Your task to perform on an android device: Search for sushi restaurants on Maps Image 0: 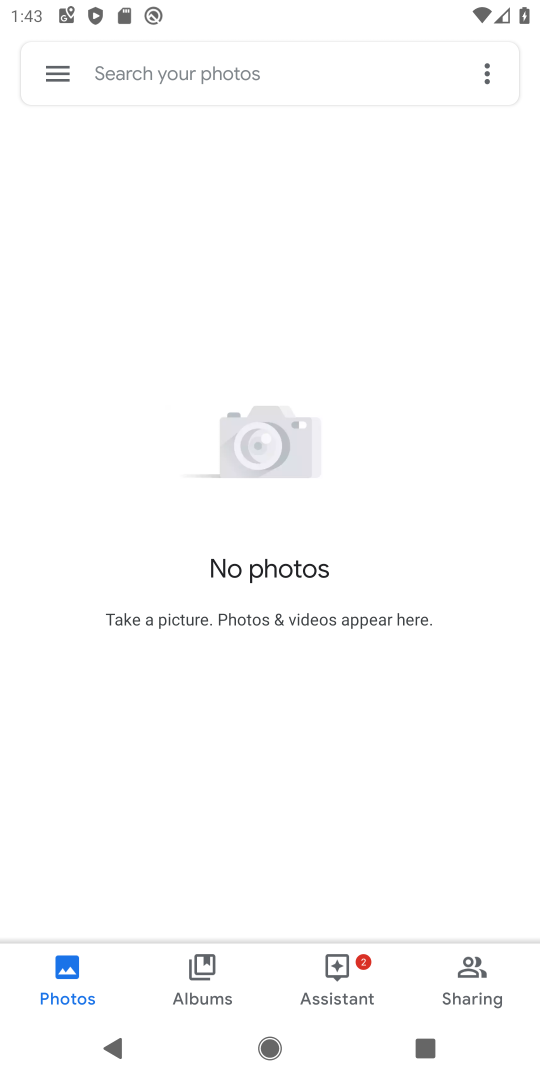
Step 0: press home button
Your task to perform on an android device: Search for sushi restaurants on Maps Image 1: 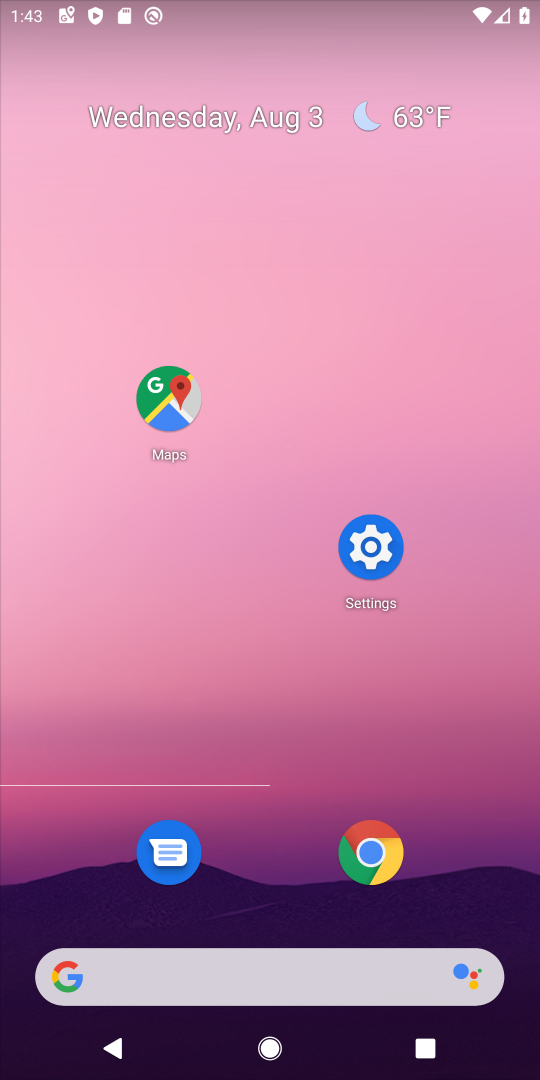
Step 1: click (177, 404)
Your task to perform on an android device: Search for sushi restaurants on Maps Image 2: 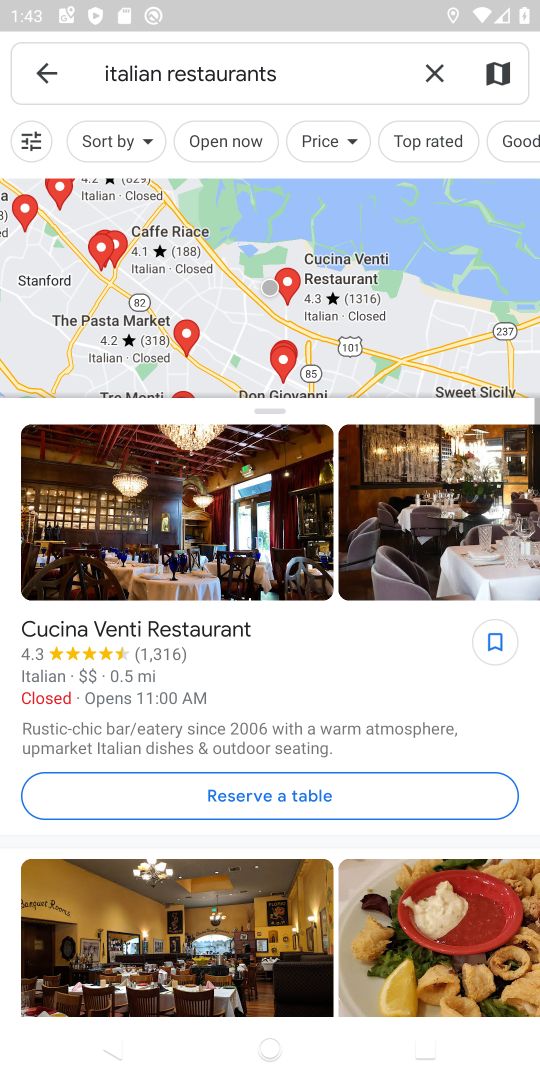
Step 2: click (434, 75)
Your task to perform on an android device: Search for sushi restaurants on Maps Image 3: 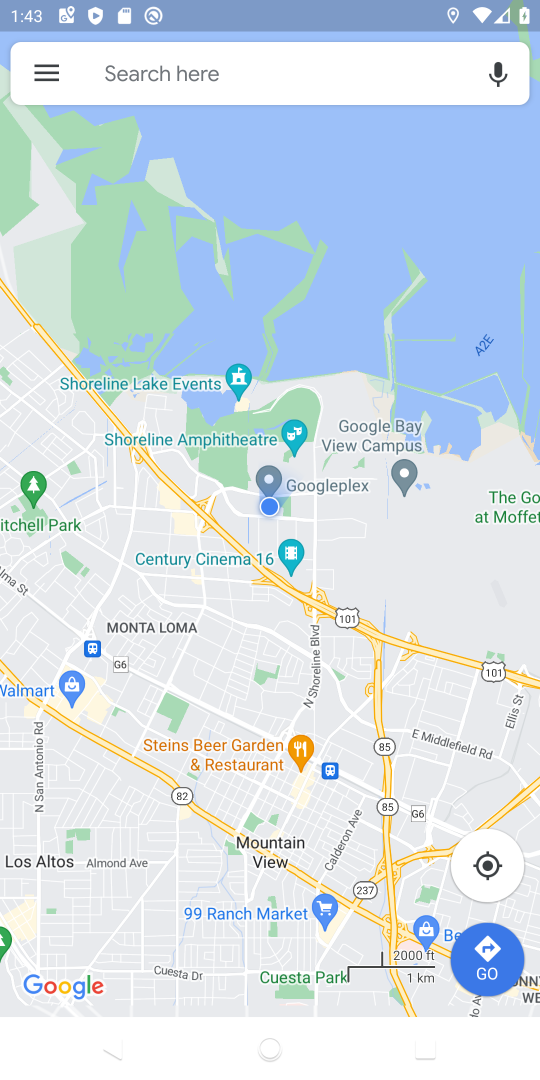
Step 3: click (290, 76)
Your task to perform on an android device: Search for sushi restaurants on Maps Image 4: 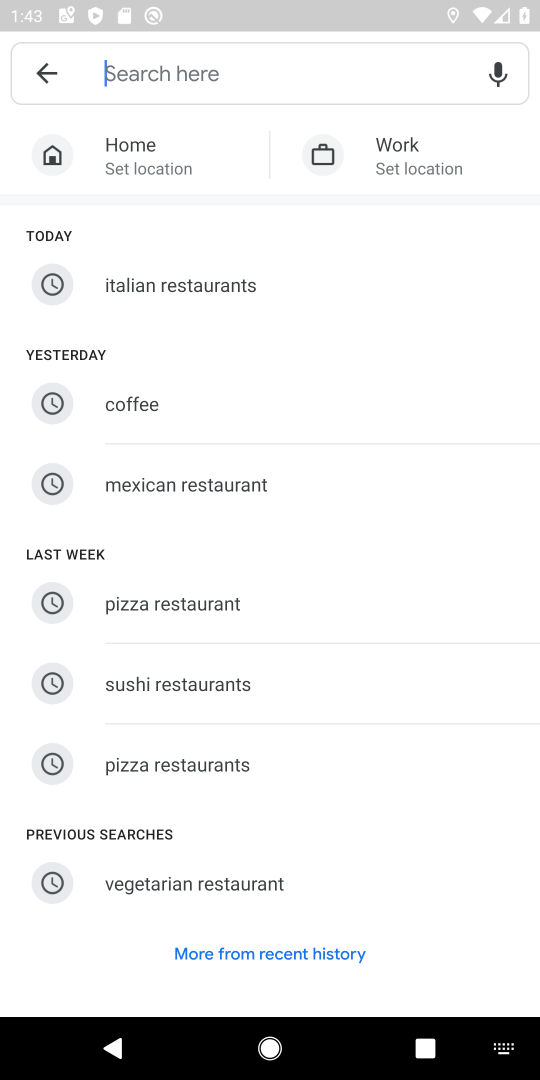
Step 4: click (186, 687)
Your task to perform on an android device: Search for sushi restaurants on Maps Image 5: 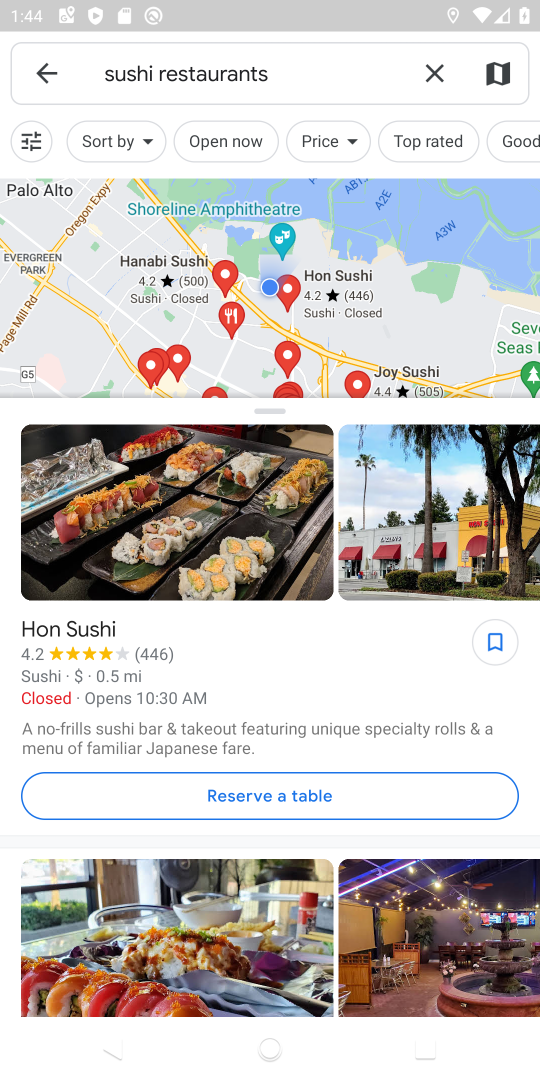
Step 5: task complete